Your task to perform on an android device: Search for bose soundlink on costco.com, select the first entry, add it to the cart, then select checkout. Image 0: 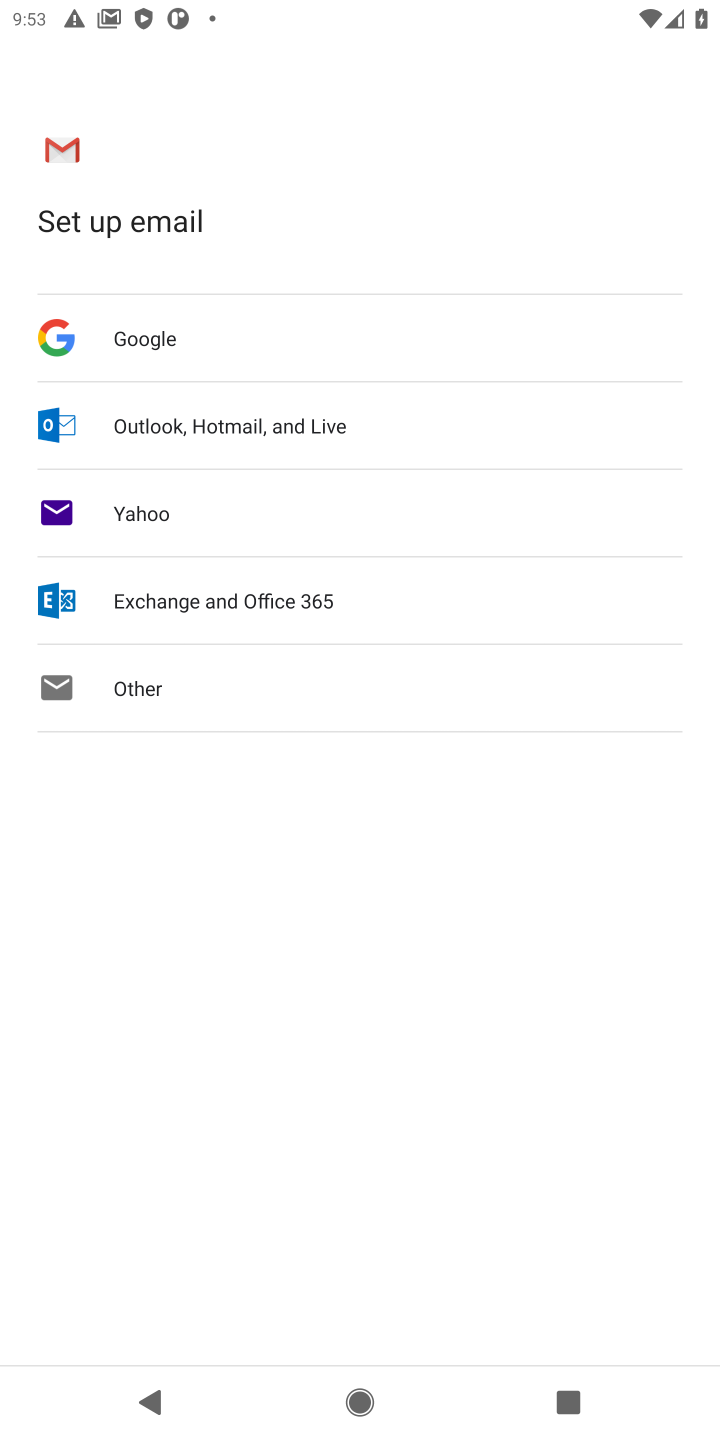
Step 0: press home button
Your task to perform on an android device: Search for bose soundlink on costco.com, select the first entry, add it to the cart, then select checkout. Image 1: 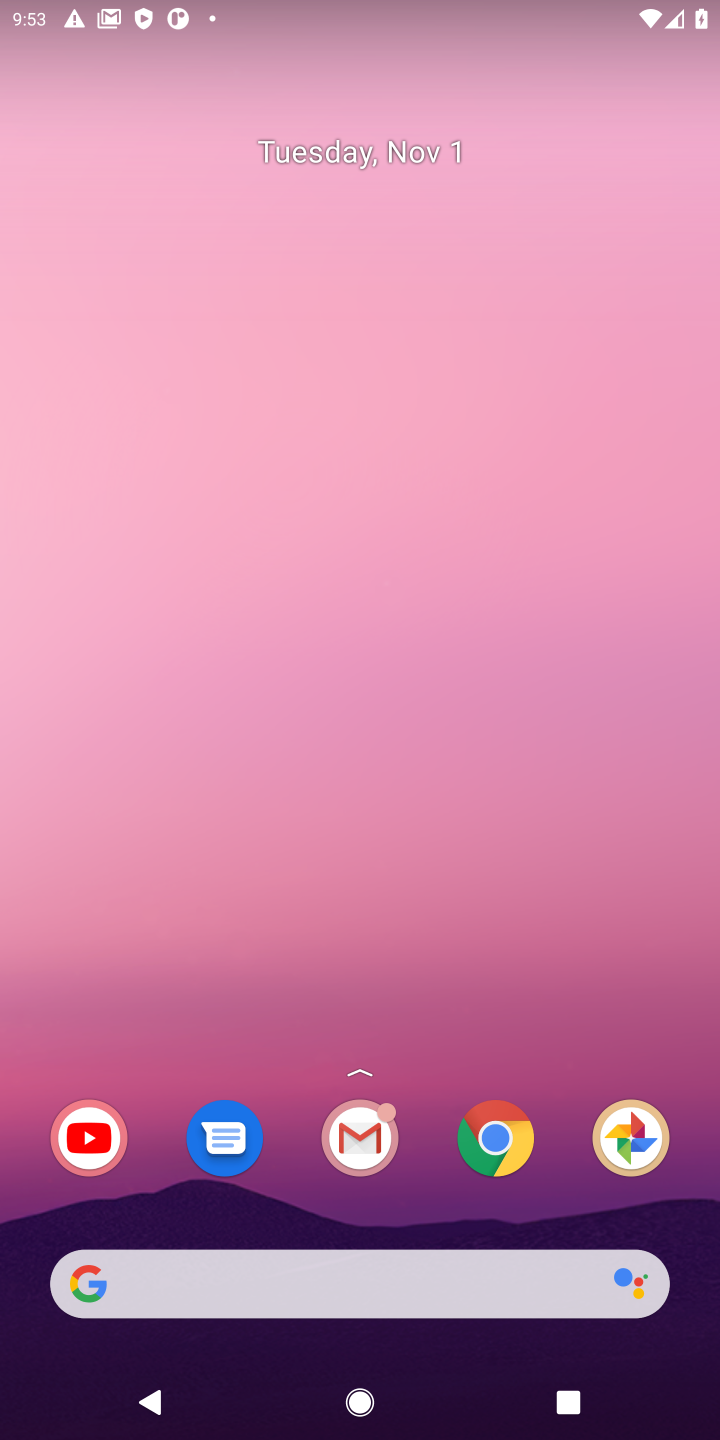
Step 1: click (494, 1158)
Your task to perform on an android device: Search for bose soundlink on costco.com, select the first entry, add it to the cart, then select checkout. Image 2: 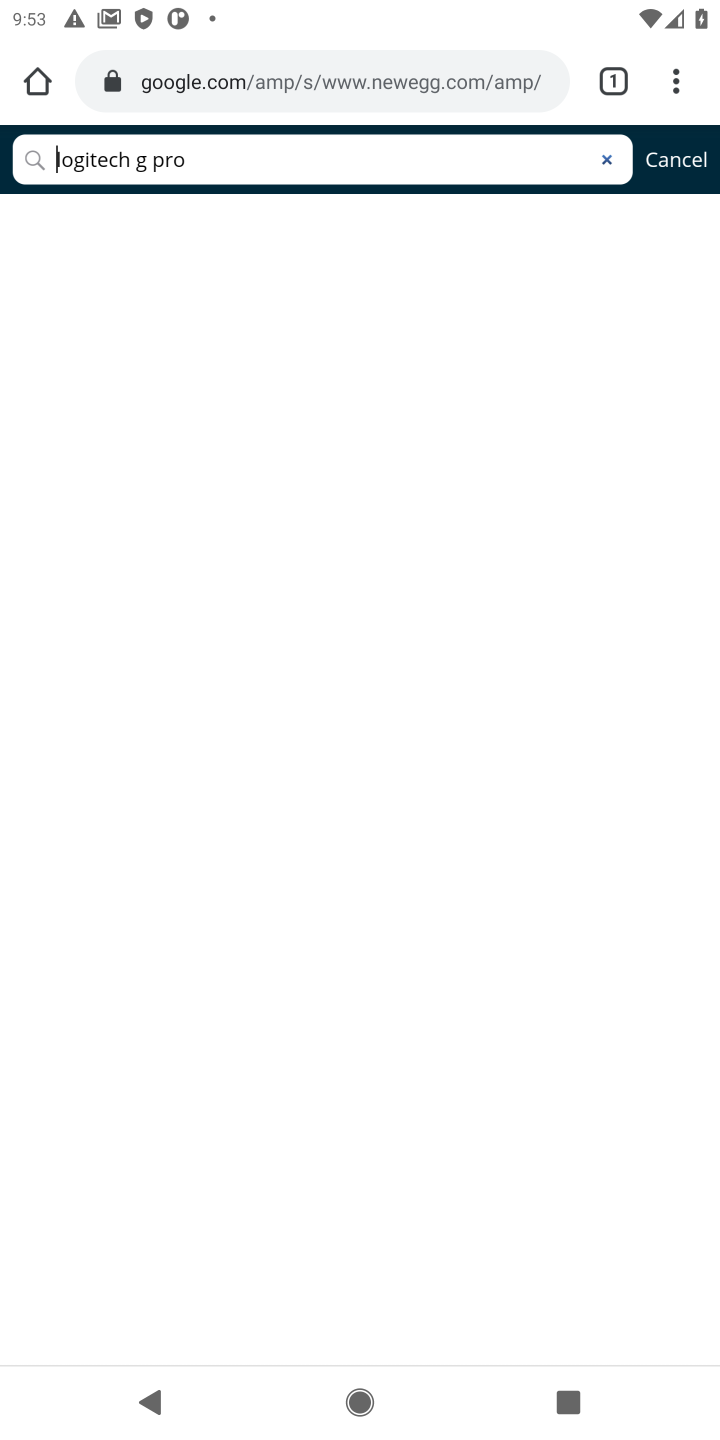
Step 2: click (293, 74)
Your task to perform on an android device: Search for bose soundlink on costco.com, select the first entry, add it to the cart, then select checkout. Image 3: 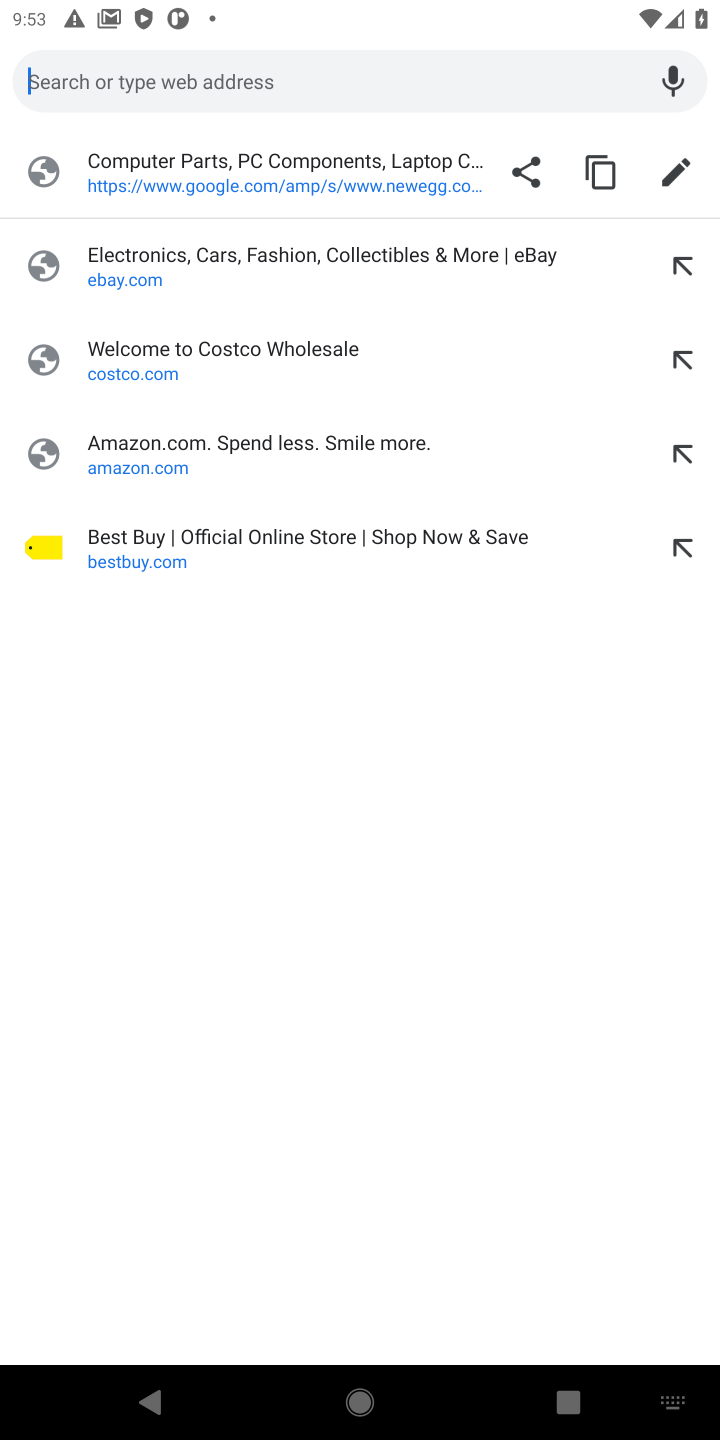
Step 3: type "costco.com"
Your task to perform on an android device: Search for bose soundlink on costco.com, select the first entry, add it to the cart, then select checkout. Image 4: 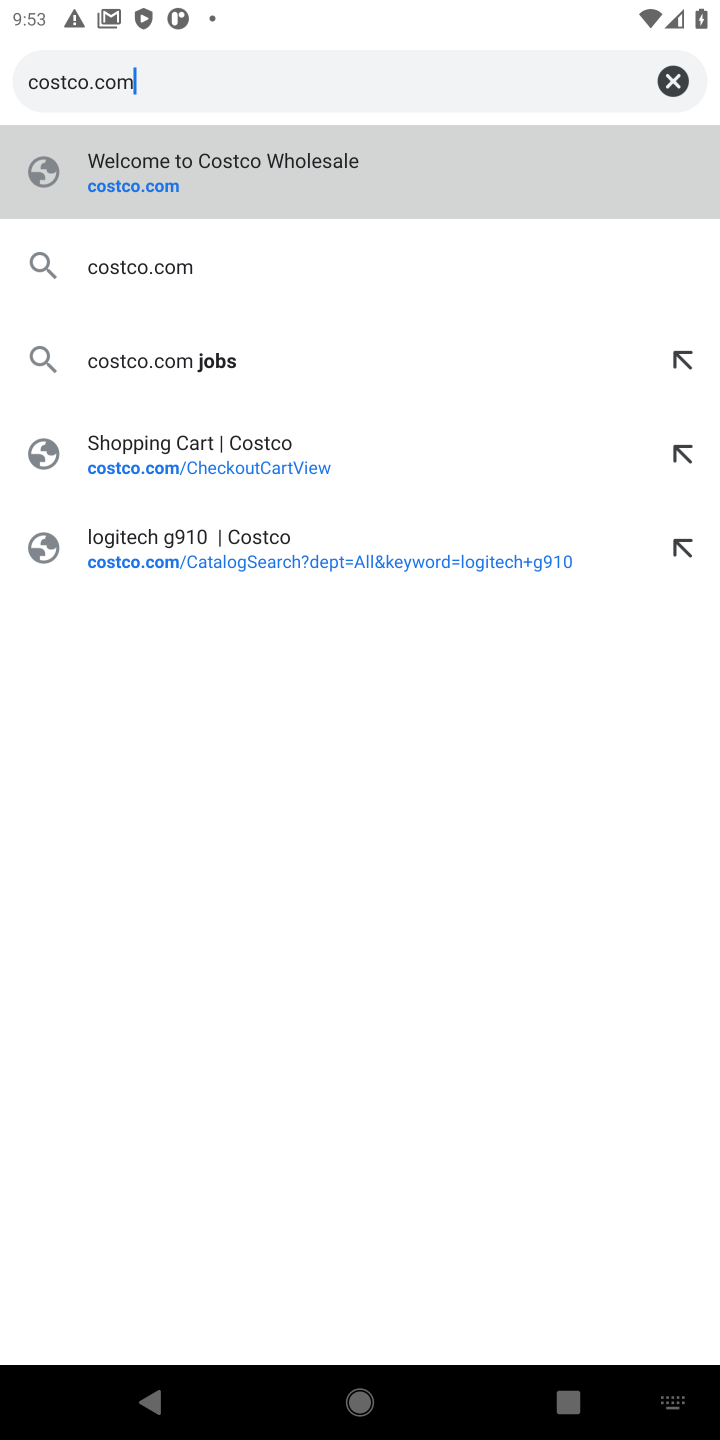
Step 4: click (123, 196)
Your task to perform on an android device: Search for bose soundlink on costco.com, select the first entry, add it to the cart, then select checkout. Image 5: 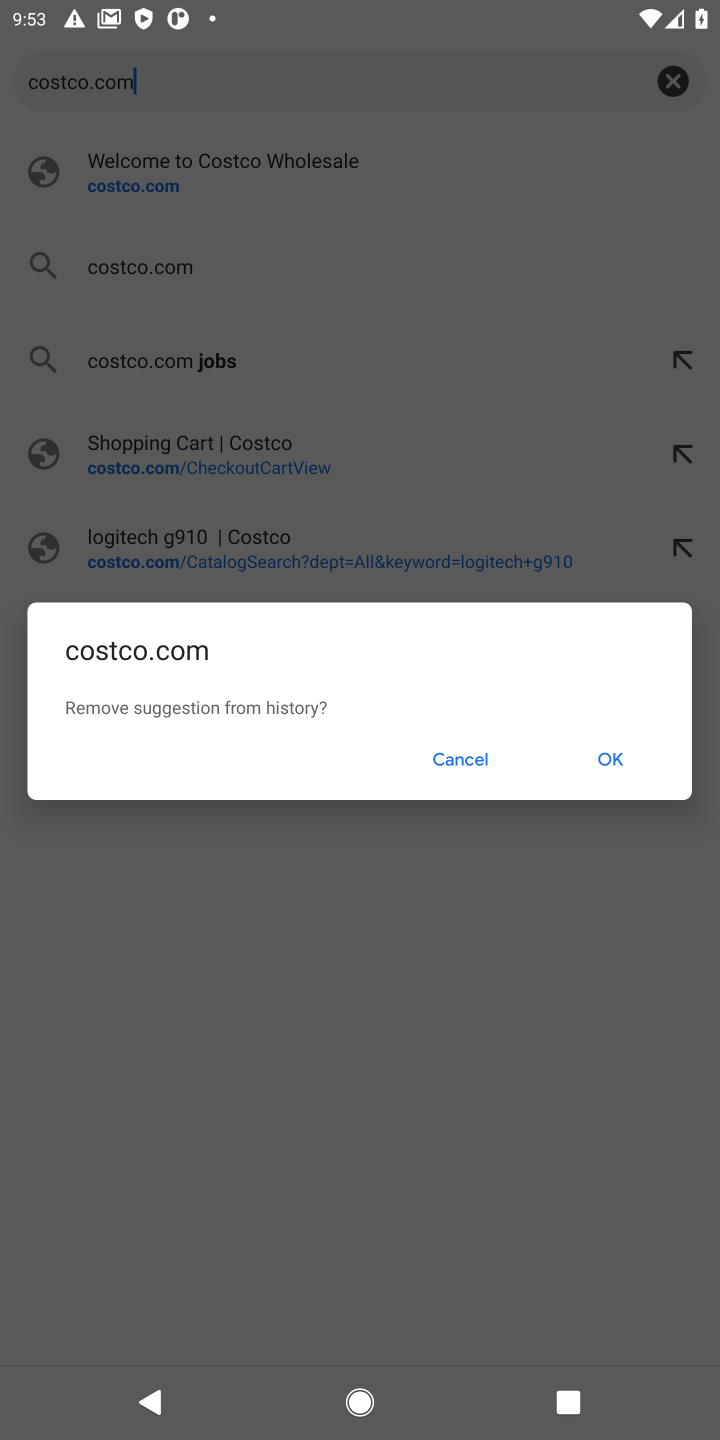
Step 5: click (448, 773)
Your task to perform on an android device: Search for bose soundlink on costco.com, select the first entry, add it to the cart, then select checkout. Image 6: 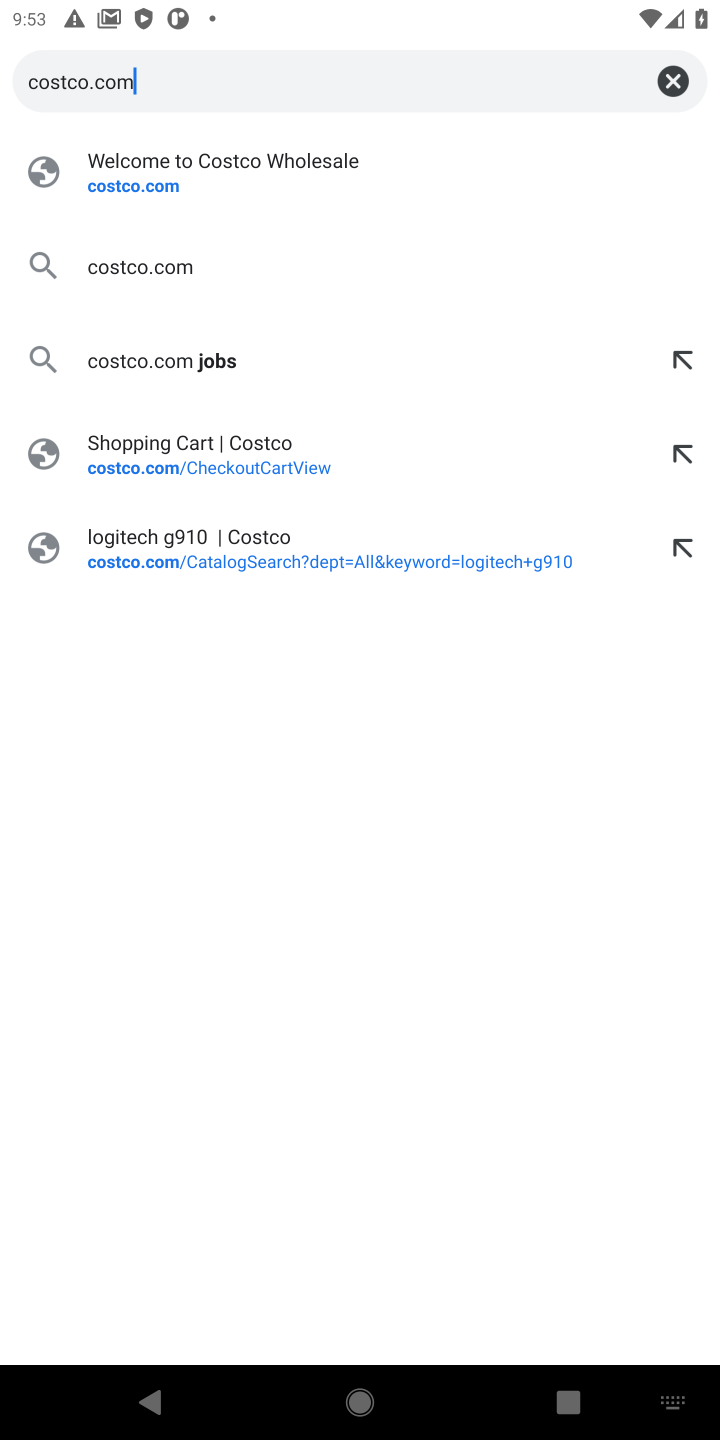
Step 6: click (142, 191)
Your task to perform on an android device: Search for bose soundlink on costco.com, select the first entry, add it to the cart, then select checkout. Image 7: 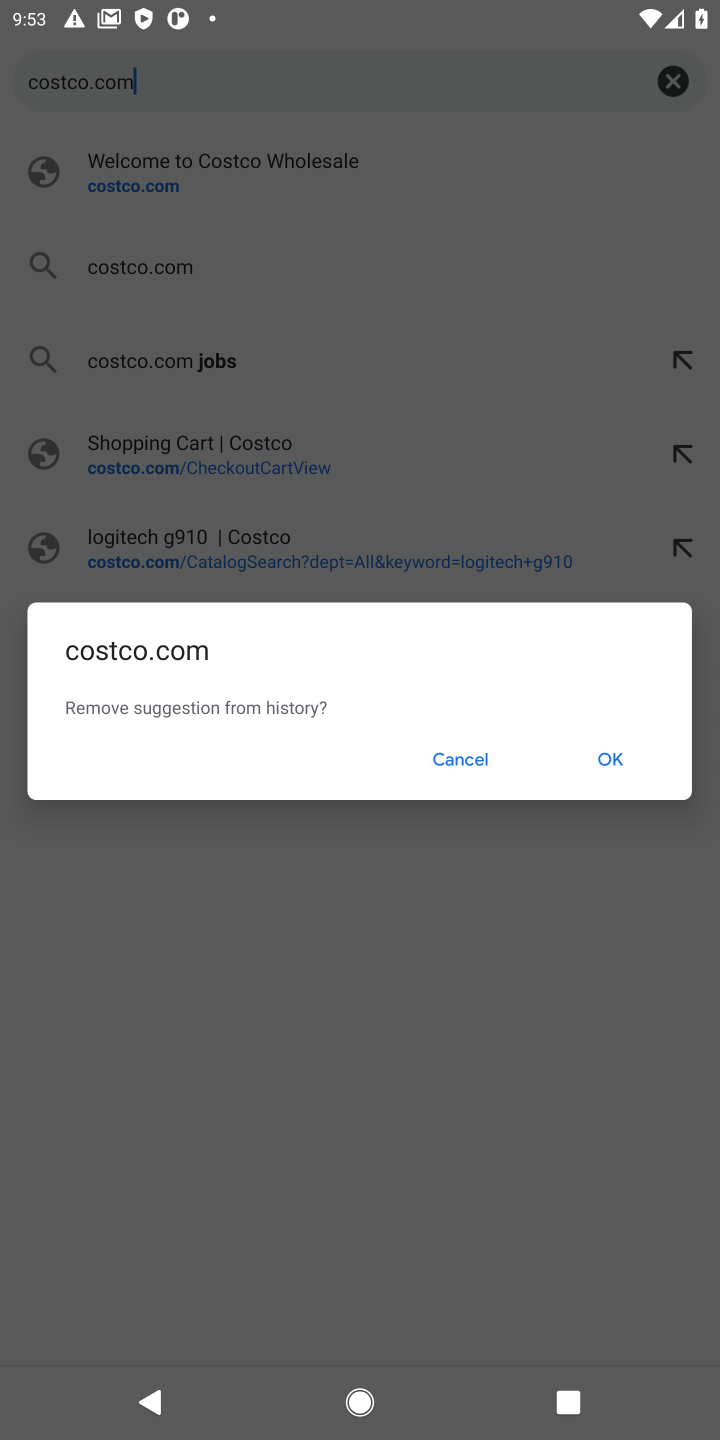
Step 7: click (463, 762)
Your task to perform on an android device: Search for bose soundlink on costco.com, select the first entry, add it to the cart, then select checkout. Image 8: 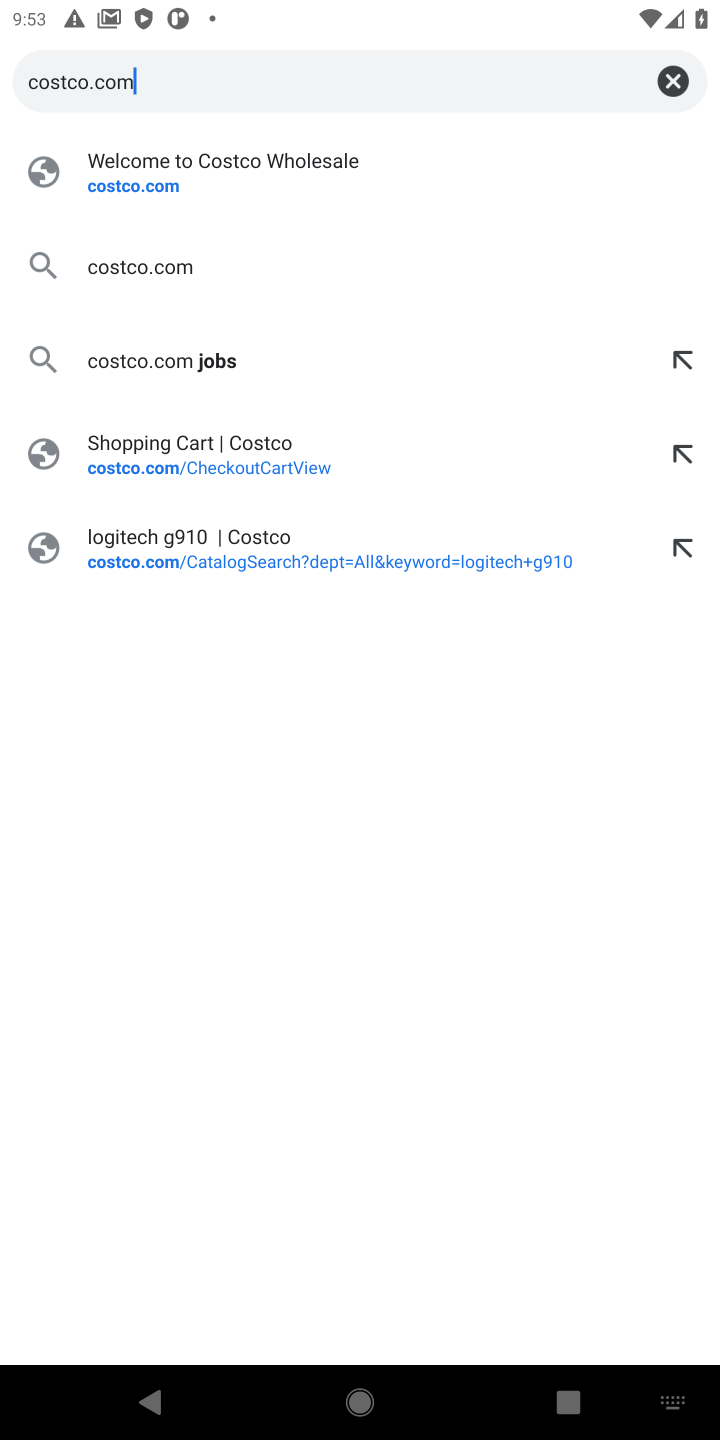
Step 8: click (138, 195)
Your task to perform on an android device: Search for bose soundlink on costco.com, select the first entry, add it to the cart, then select checkout. Image 9: 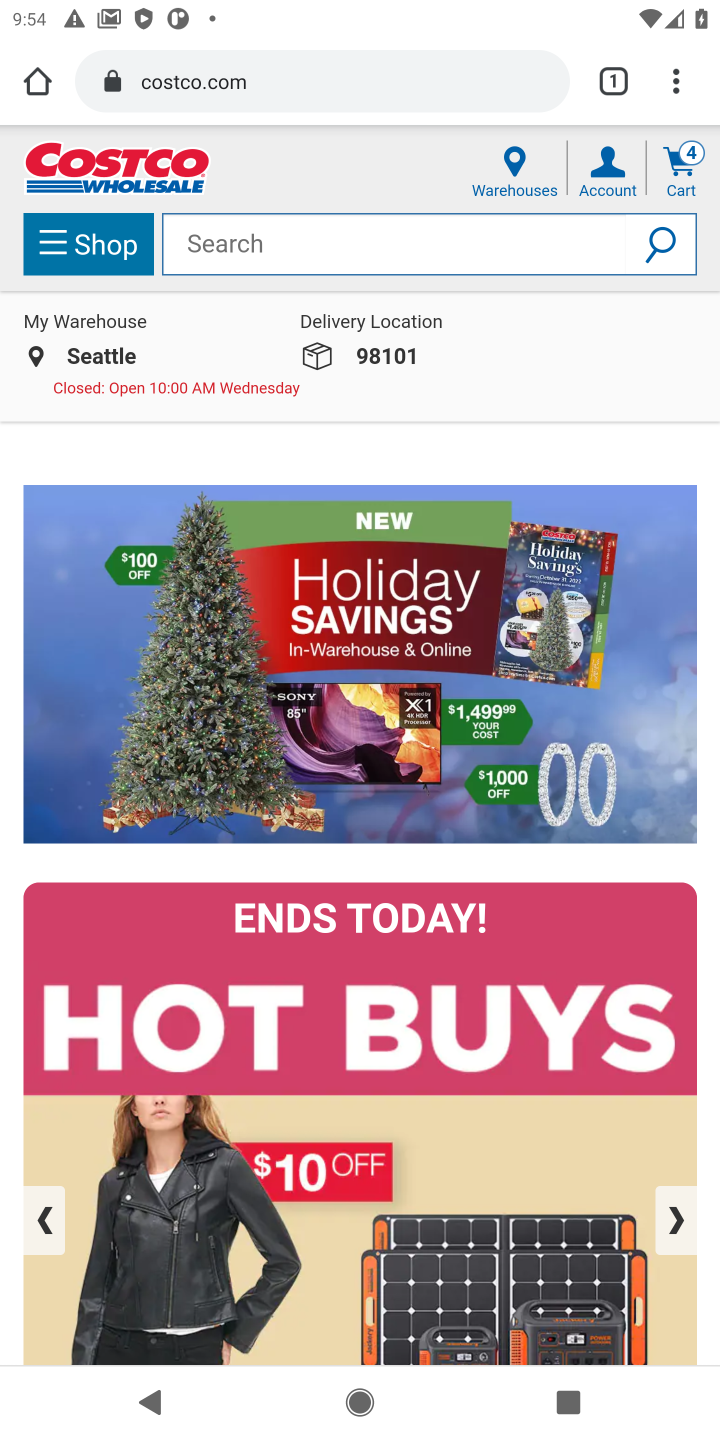
Step 9: click (352, 243)
Your task to perform on an android device: Search for bose soundlink on costco.com, select the first entry, add it to the cart, then select checkout. Image 10: 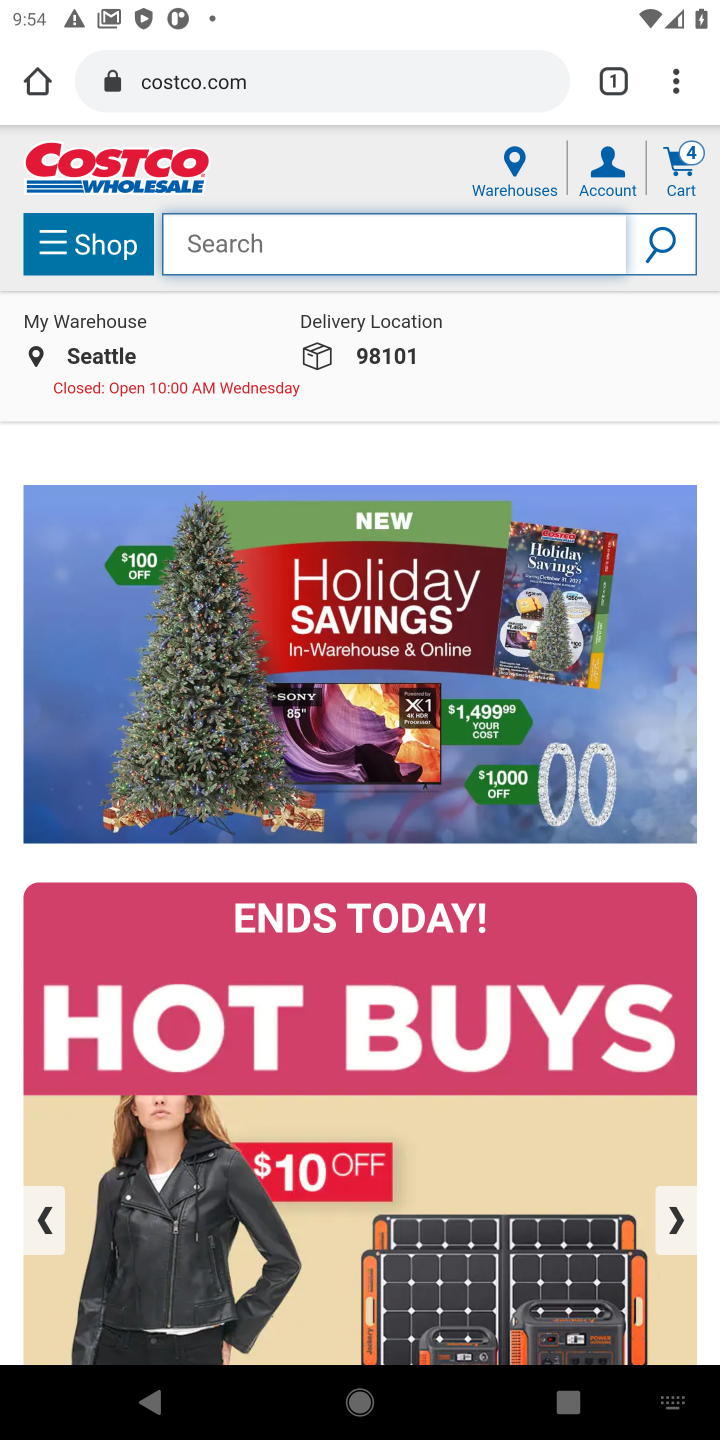
Step 10: type "bose soundlink"
Your task to perform on an android device: Search for bose soundlink on costco.com, select the first entry, add it to the cart, then select checkout. Image 11: 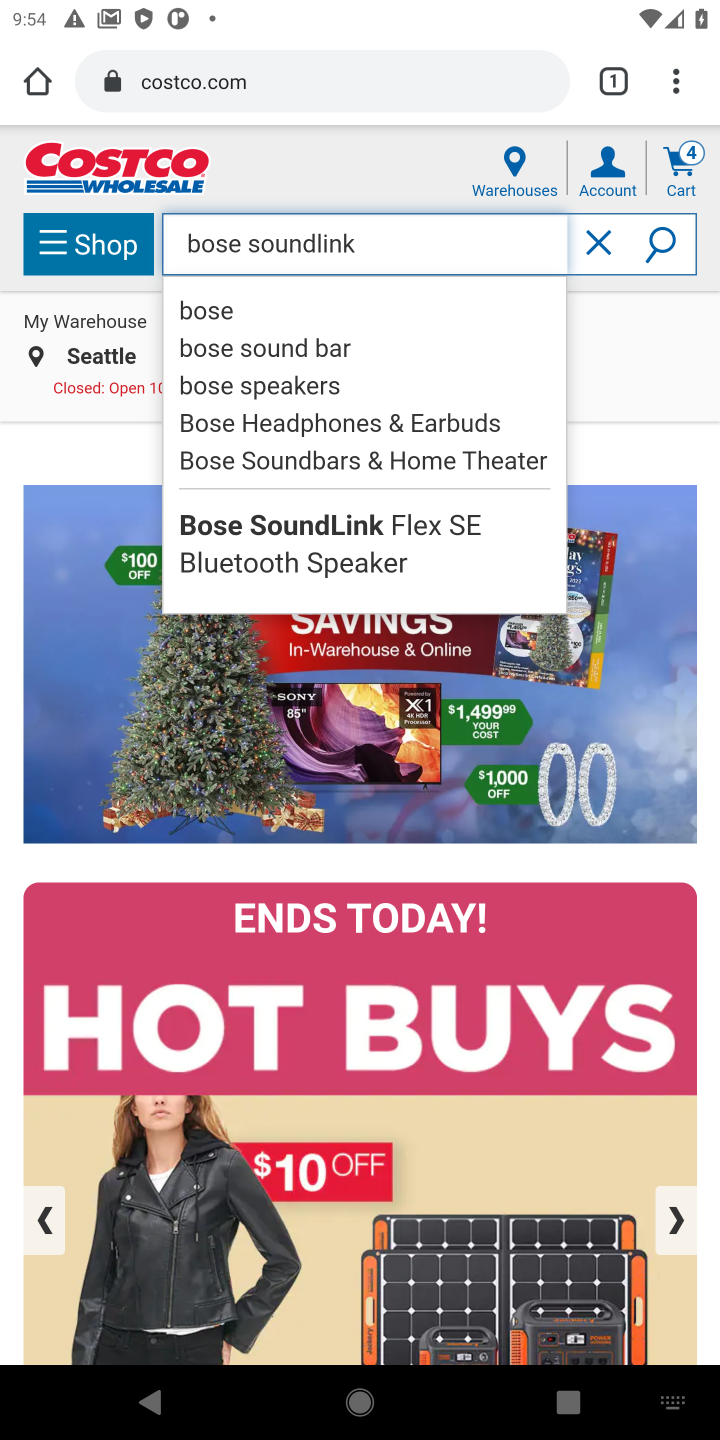
Step 11: click (667, 244)
Your task to perform on an android device: Search for bose soundlink on costco.com, select the first entry, add it to the cart, then select checkout. Image 12: 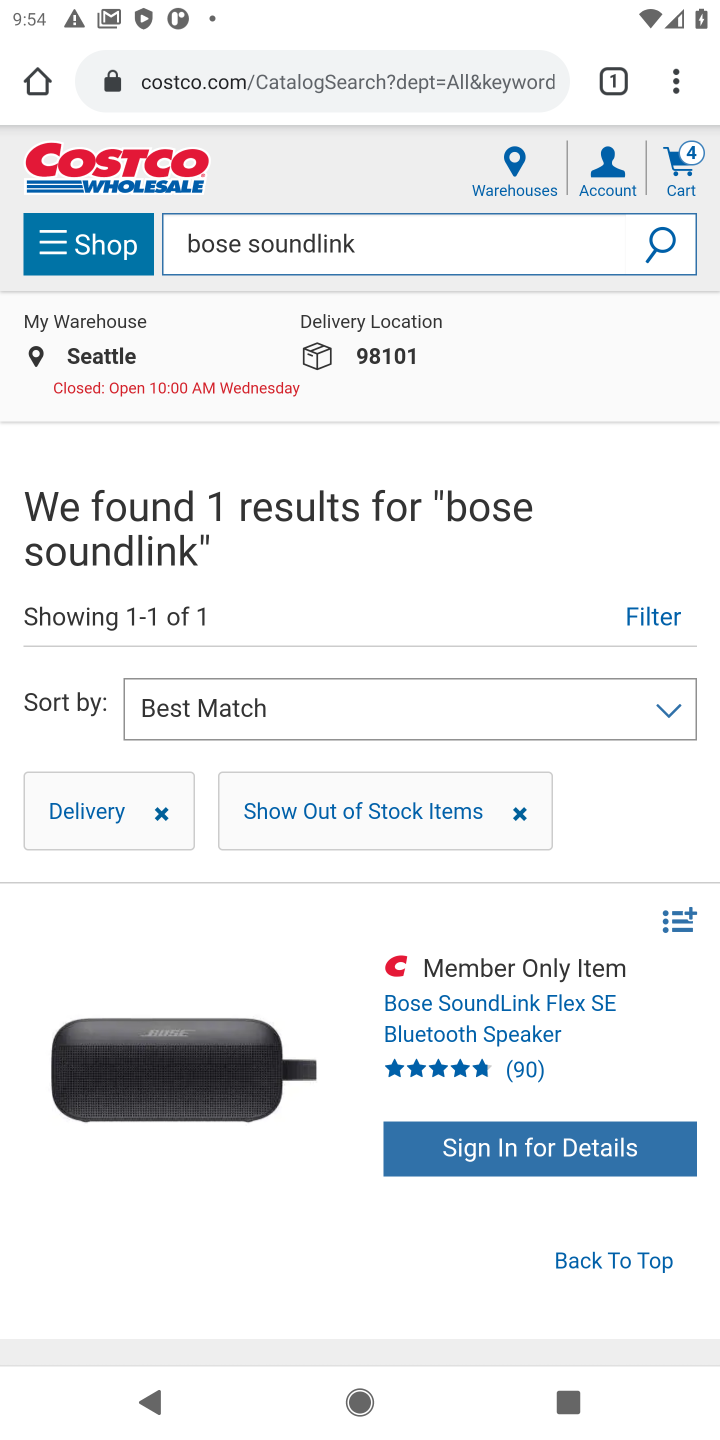
Step 12: click (297, 1100)
Your task to perform on an android device: Search for bose soundlink on costco.com, select the first entry, add it to the cart, then select checkout. Image 13: 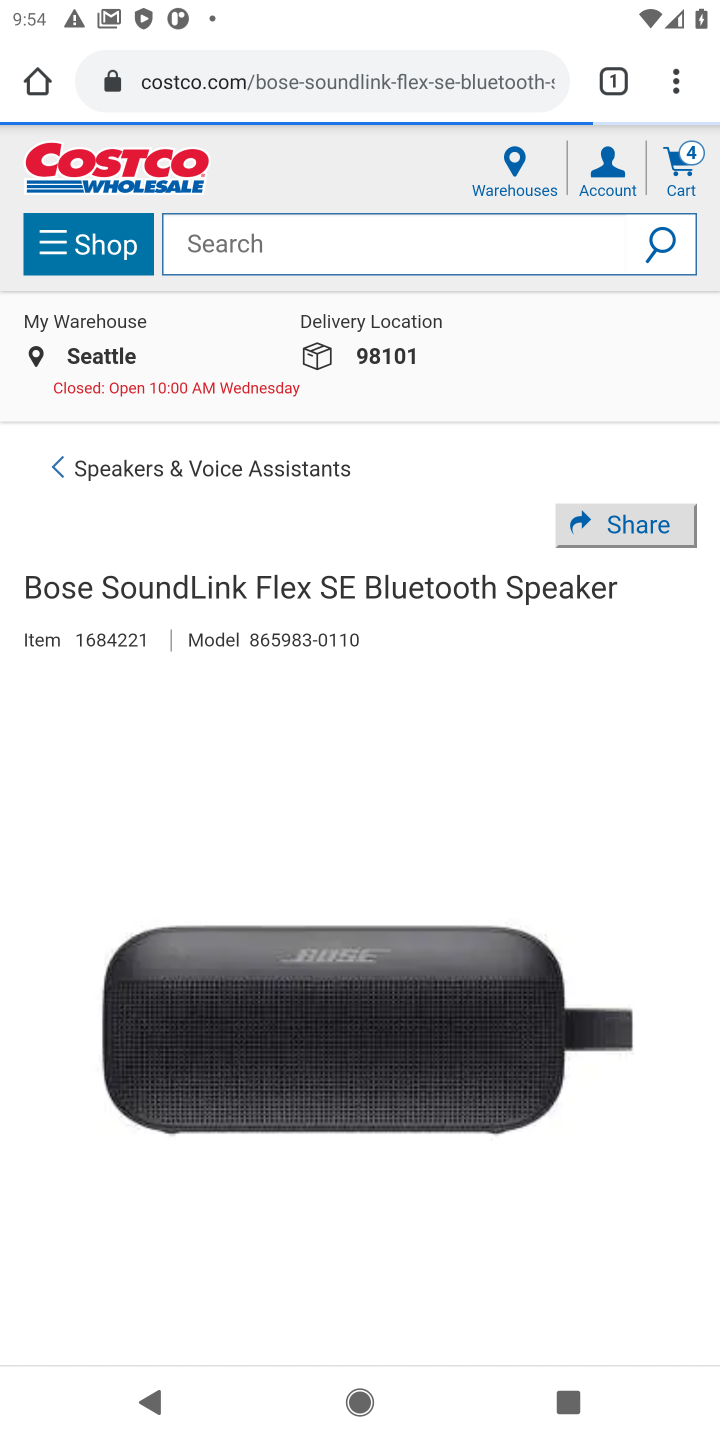
Step 13: task complete